Your task to perform on an android device: Go to wifi settings Image 0: 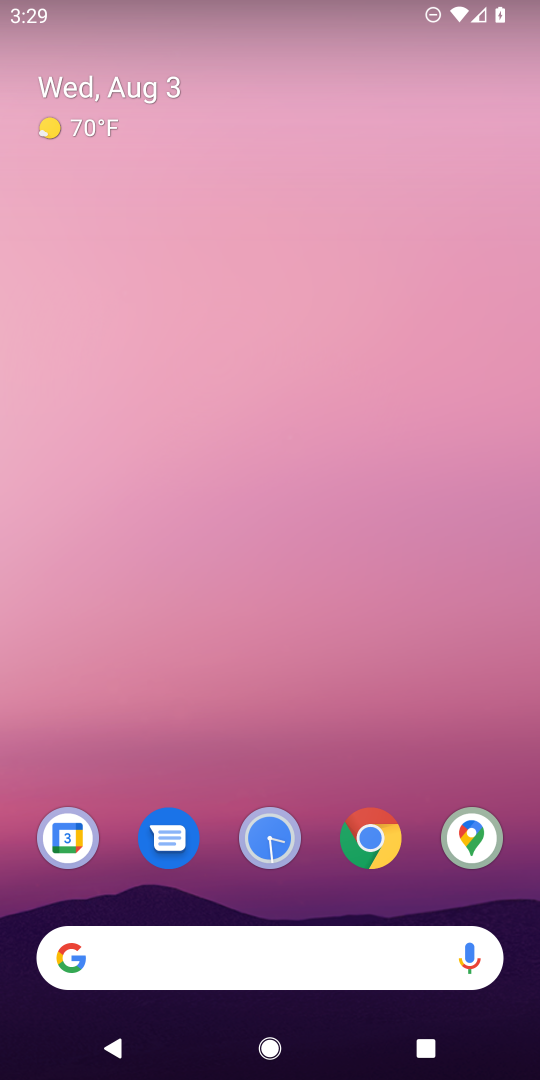
Step 0: drag from (383, 754) to (352, 264)
Your task to perform on an android device: Go to wifi settings Image 1: 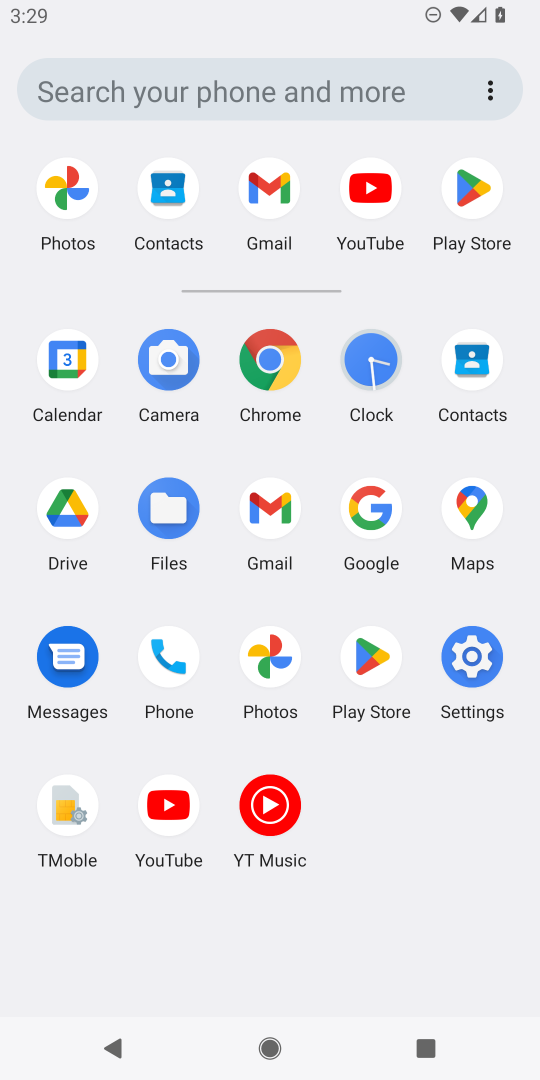
Step 1: click (452, 660)
Your task to perform on an android device: Go to wifi settings Image 2: 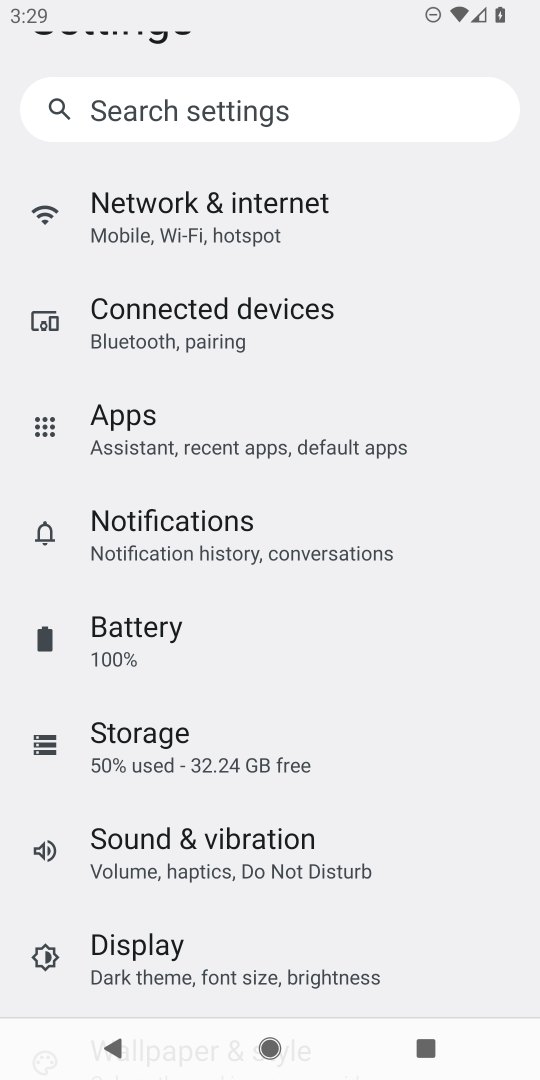
Step 2: click (176, 220)
Your task to perform on an android device: Go to wifi settings Image 3: 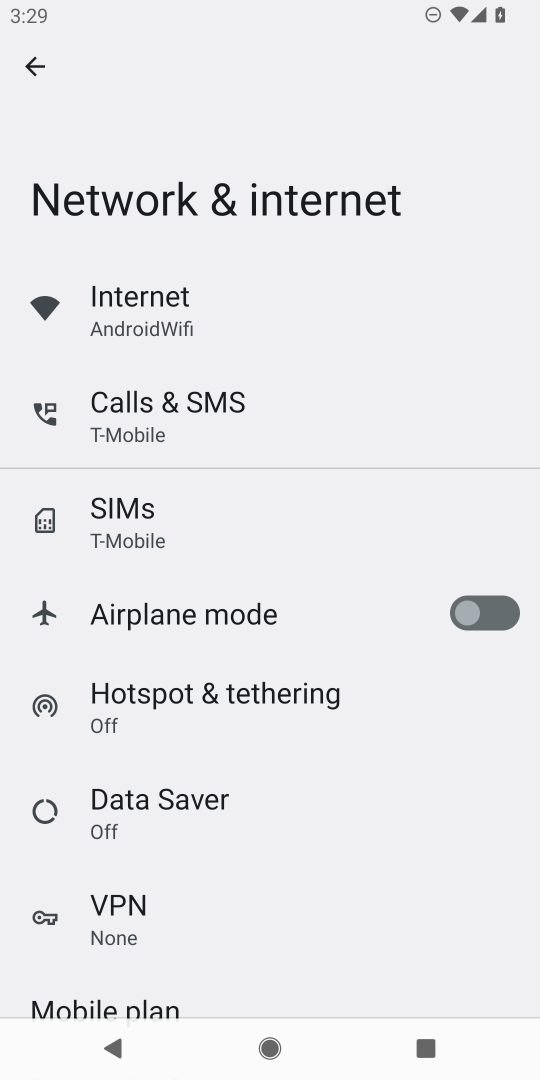
Step 3: click (179, 294)
Your task to perform on an android device: Go to wifi settings Image 4: 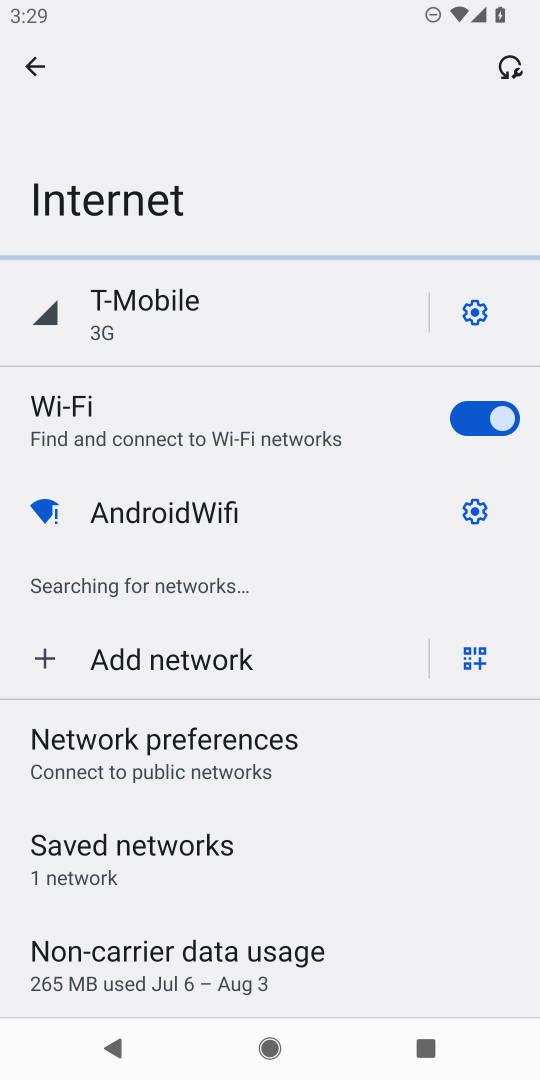
Step 4: click (147, 515)
Your task to perform on an android device: Go to wifi settings Image 5: 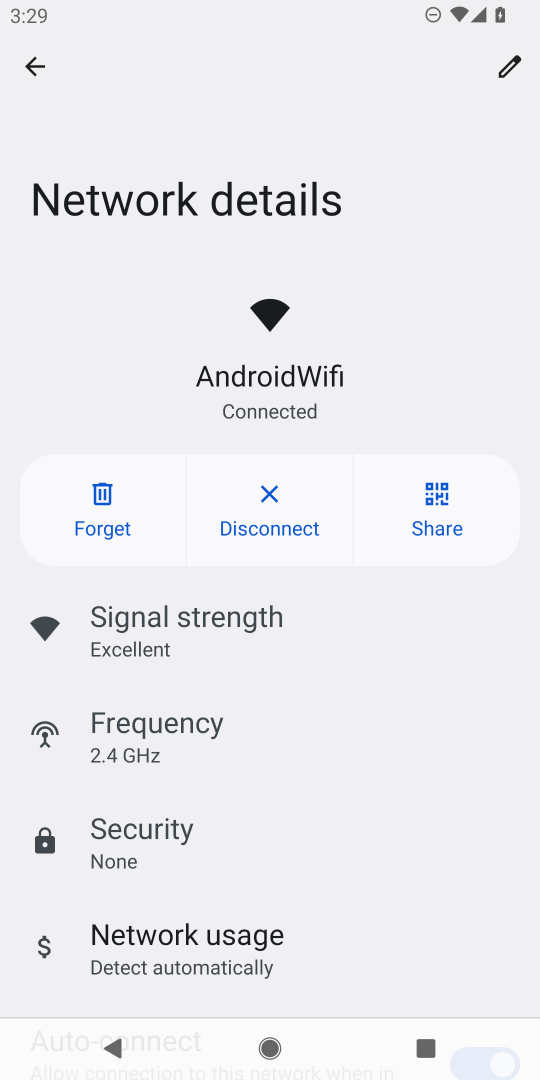
Step 5: task complete